Your task to perform on an android device: see tabs open on other devices in the chrome app Image 0: 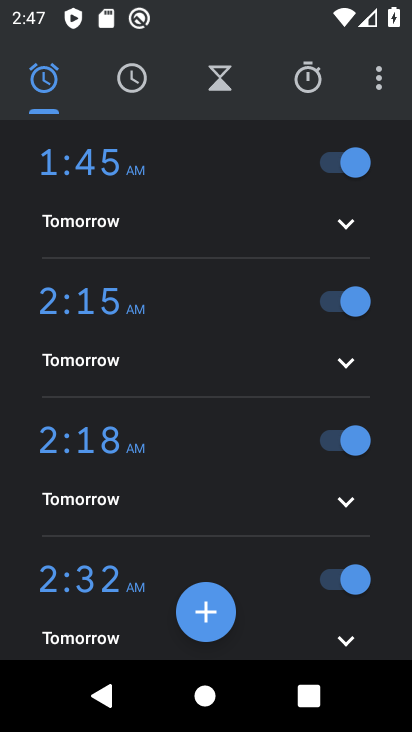
Step 0: press home button
Your task to perform on an android device: see tabs open on other devices in the chrome app Image 1: 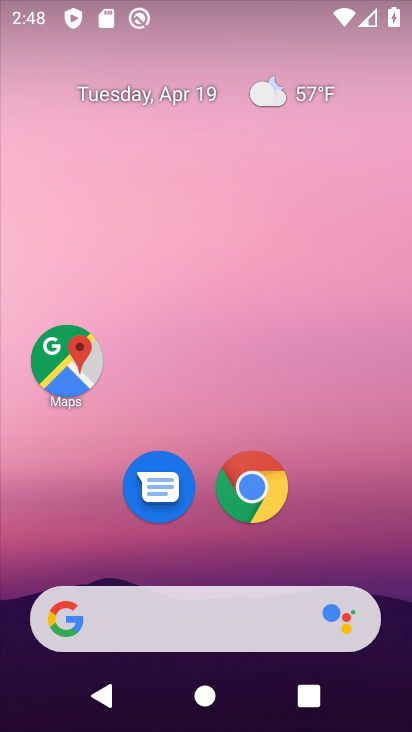
Step 1: drag from (351, 492) to (349, 262)
Your task to perform on an android device: see tabs open on other devices in the chrome app Image 2: 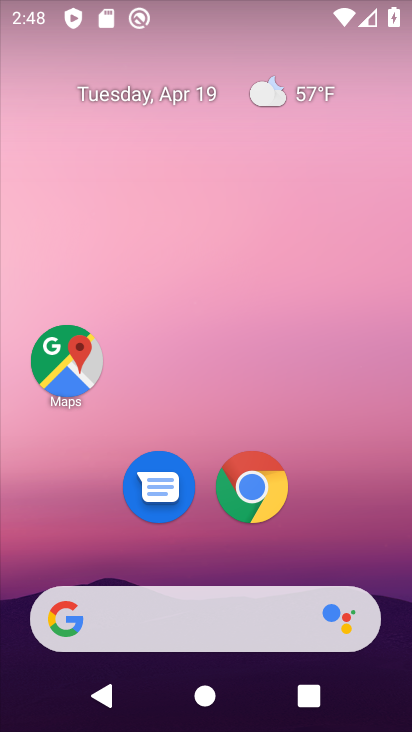
Step 2: click (258, 511)
Your task to perform on an android device: see tabs open on other devices in the chrome app Image 3: 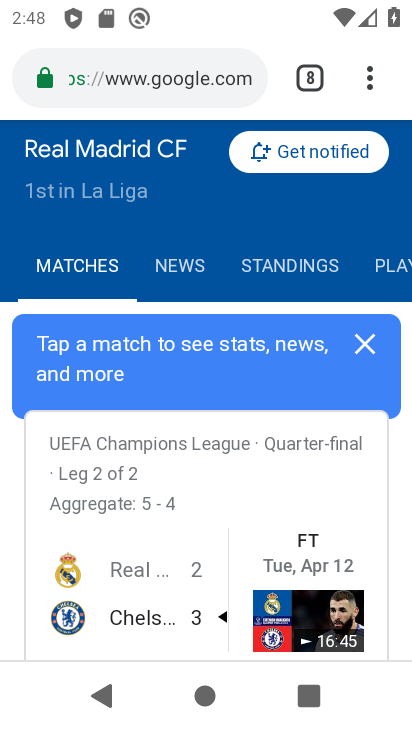
Step 3: click (316, 81)
Your task to perform on an android device: see tabs open on other devices in the chrome app Image 4: 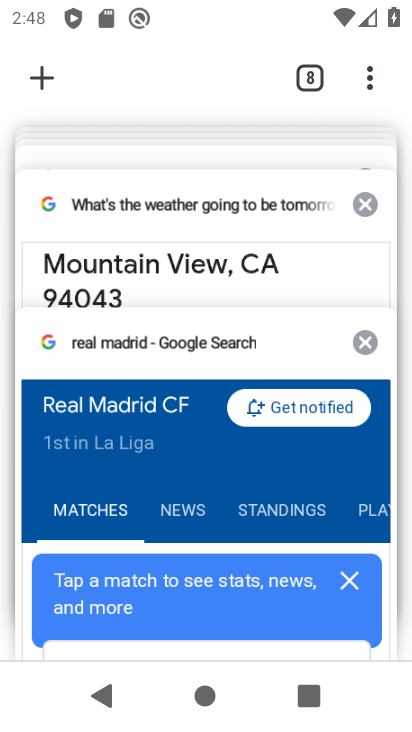
Step 4: task complete